Your task to perform on an android device: Open settings on Google Maps Image 0: 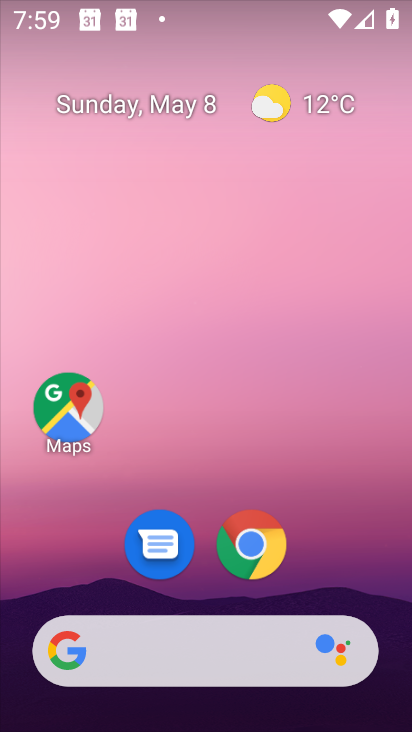
Step 0: click (58, 413)
Your task to perform on an android device: Open settings on Google Maps Image 1: 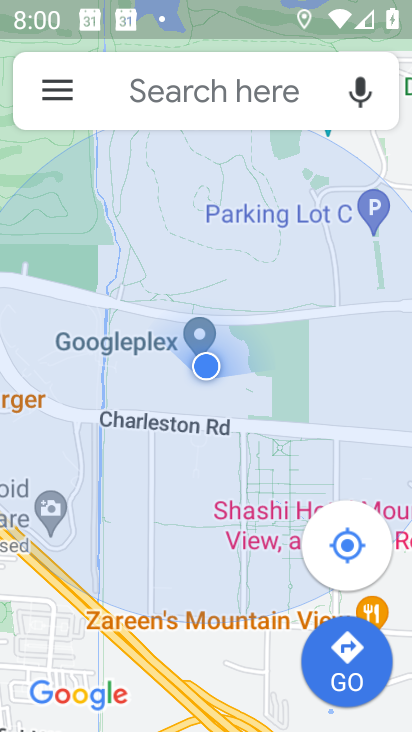
Step 1: click (50, 86)
Your task to perform on an android device: Open settings on Google Maps Image 2: 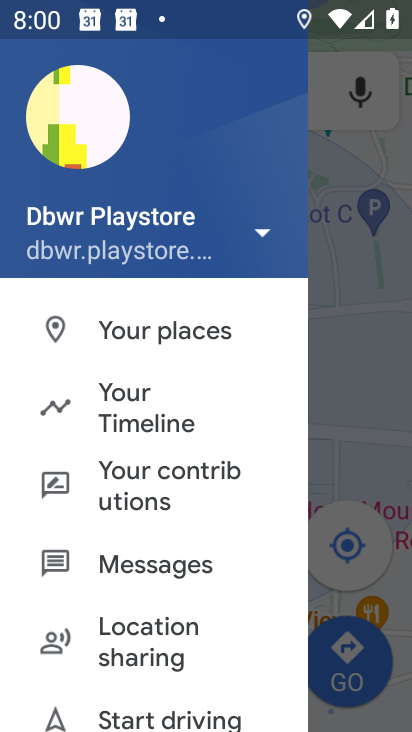
Step 2: drag from (162, 686) to (161, 299)
Your task to perform on an android device: Open settings on Google Maps Image 3: 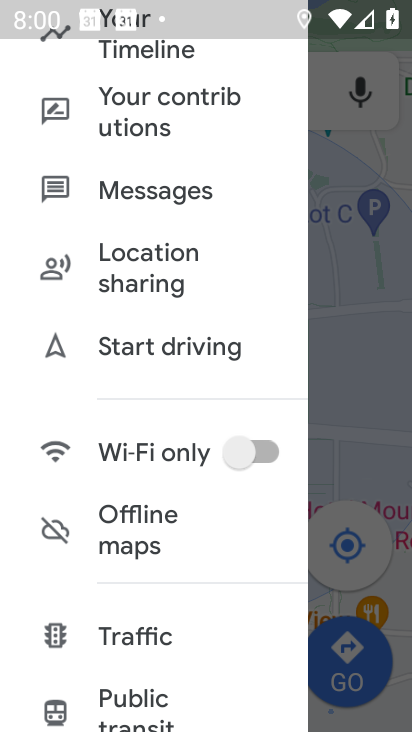
Step 3: drag from (175, 596) to (134, 311)
Your task to perform on an android device: Open settings on Google Maps Image 4: 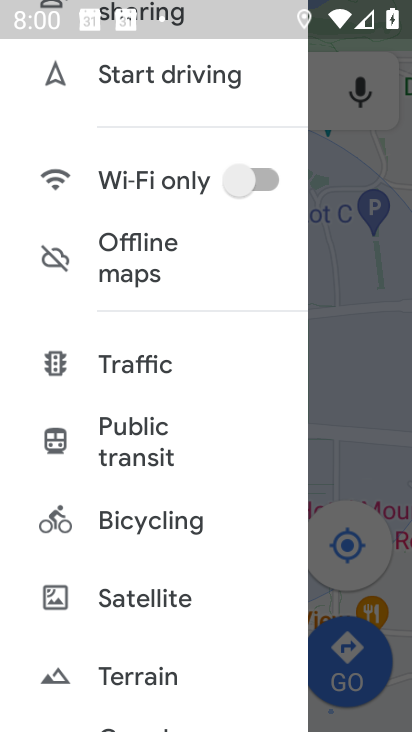
Step 4: drag from (161, 631) to (110, 165)
Your task to perform on an android device: Open settings on Google Maps Image 5: 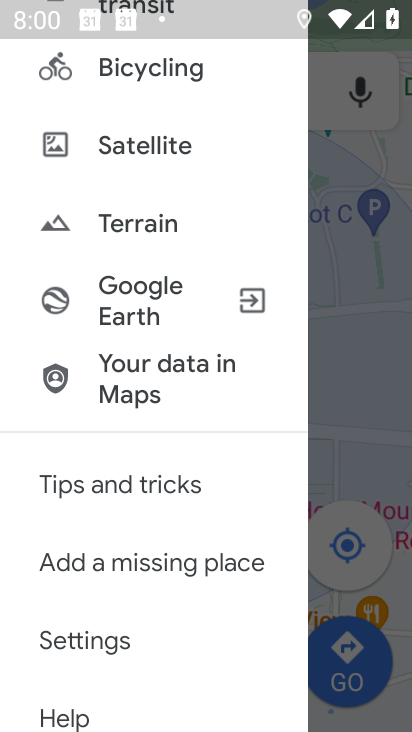
Step 5: click (111, 641)
Your task to perform on an android device: Open settings on Google Maps Image 6: 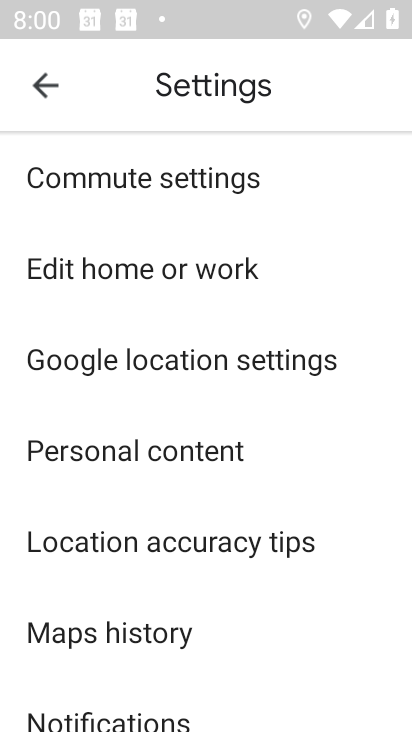
Step 6: task complete